Your task to perform on an android device: What is the news today? Image 0: 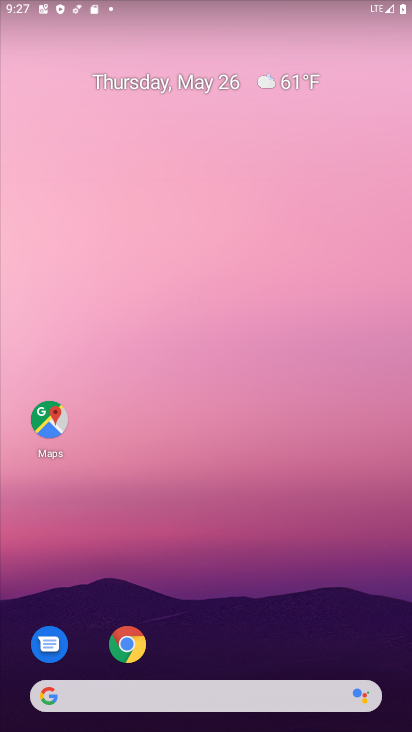
Step 0: drag from (308, 516) to (248, 108)
Your task to perform on an android device: What is the news today? Image 1: 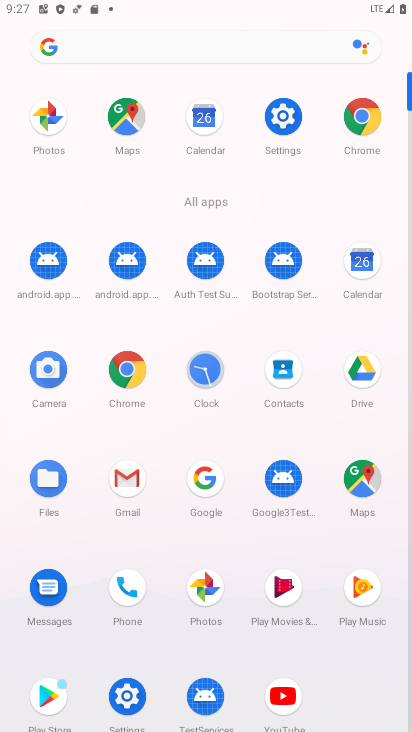
Step 1: task complete